Your task to perform on an android device: View the shopping cart on walmart. Add asus rog to the cart on walmart Image 0: 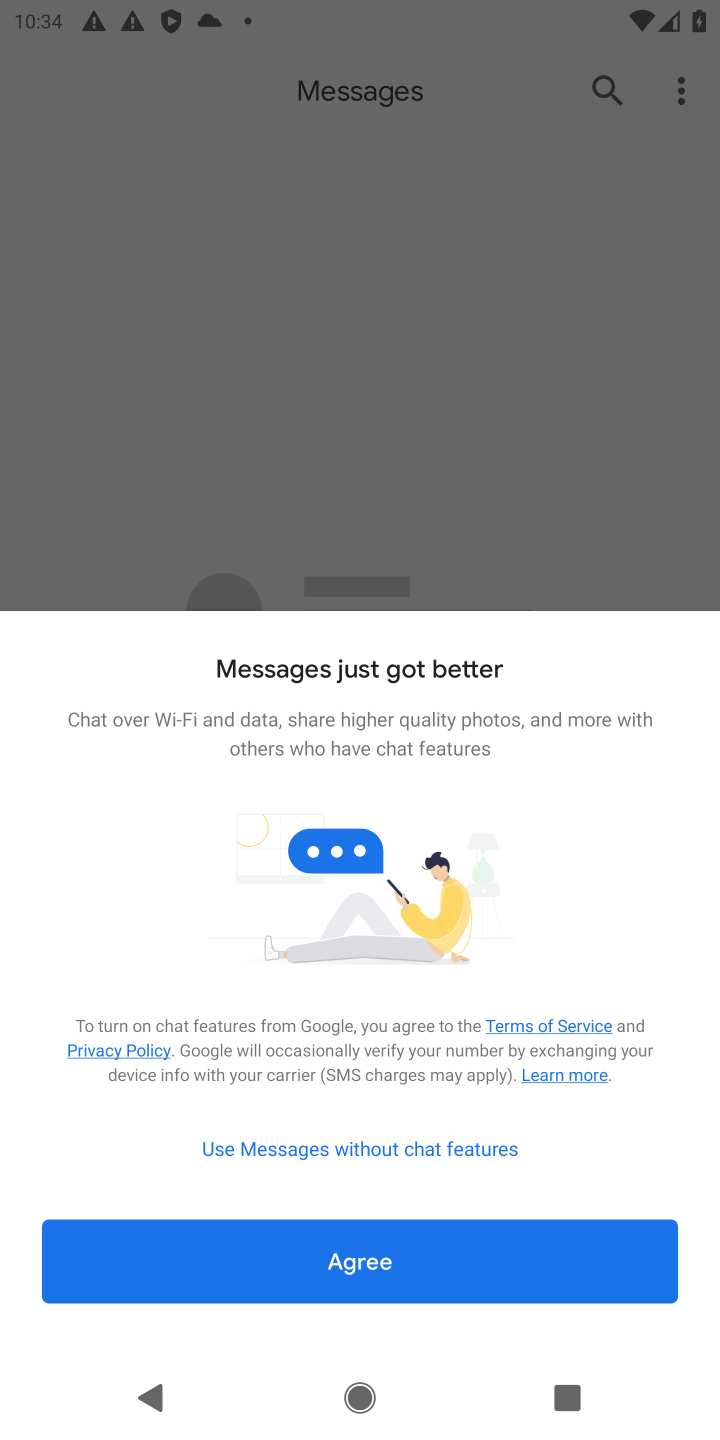
Step 0: press home button
Your task to perform on an android device: View the shopping cart on walmart. Add asus rog to the cart on walmart Image 1: 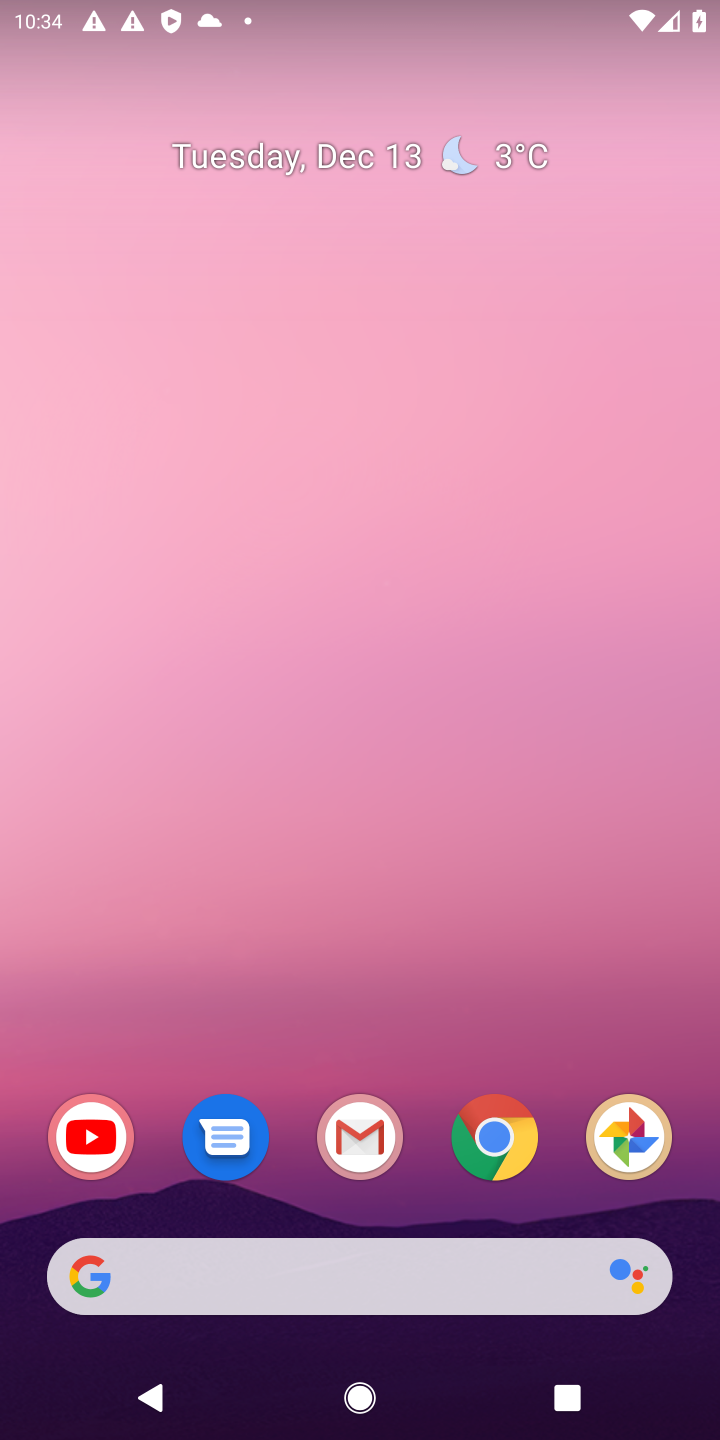
Step 1: press home button
Your task to perform on an android device: View the shopping cart on walmart. Add asus rog to the cart on walmart Image 2: 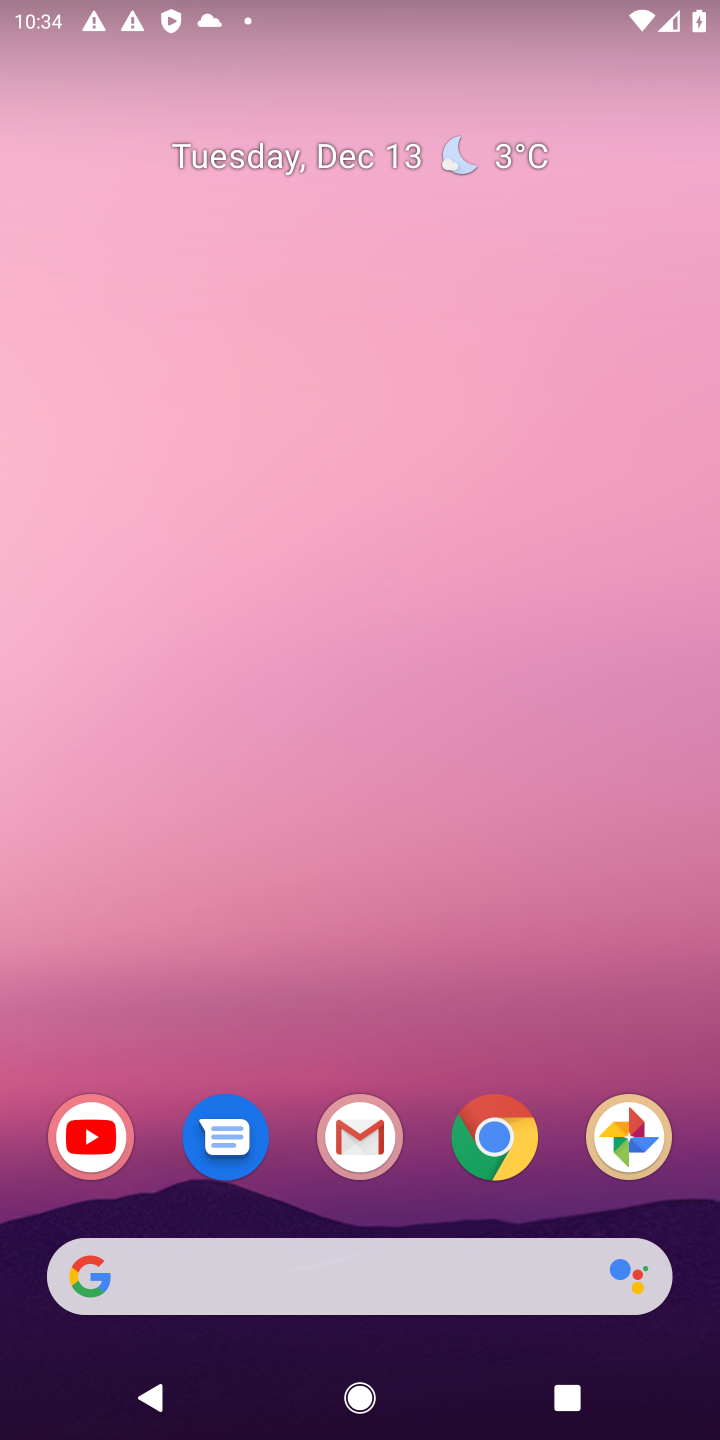
Step 2: click (486, 1119)
Your task to perform on an android device: View the shopping cart on walmart. Add asus rog to the cart on walmart Image 3: 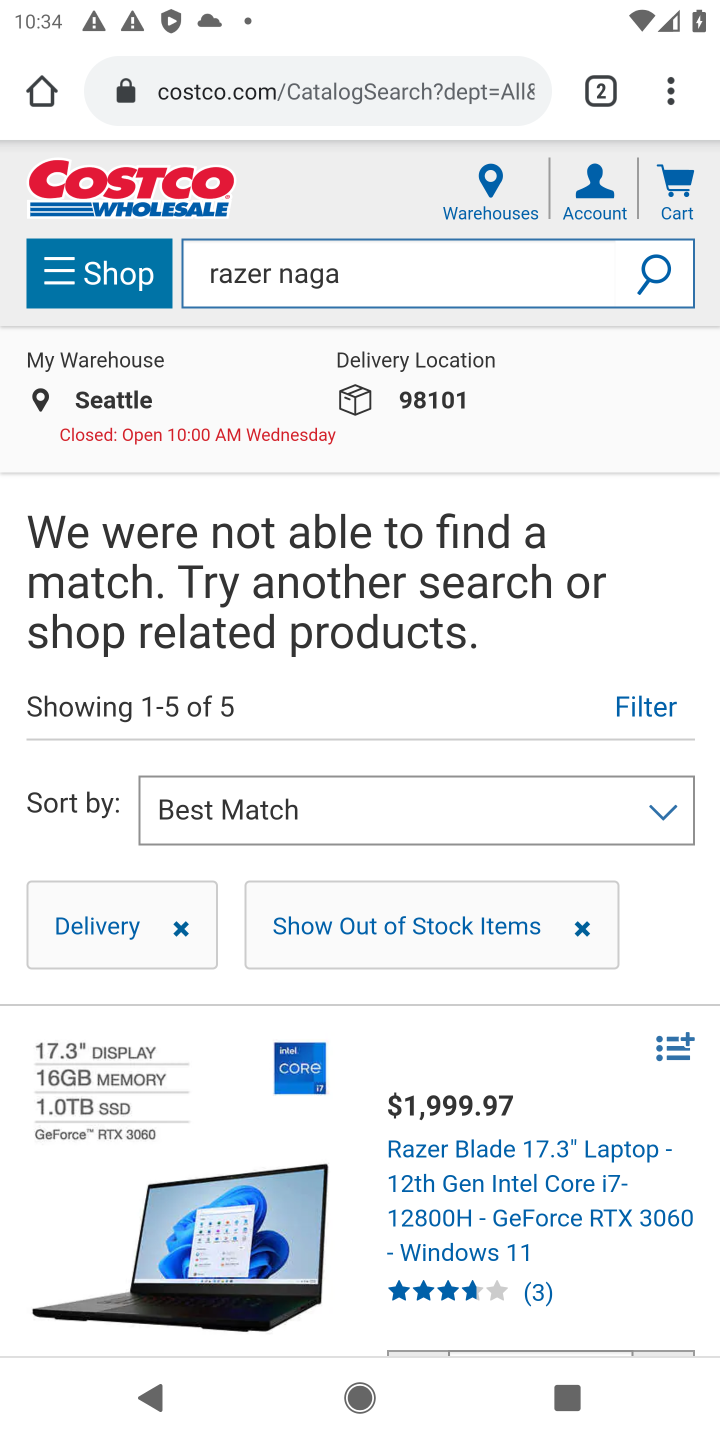
Step 3: click (600, 95)
Your task to perform on an android device: View the shopping cart on walmart. Add asus rog to the cart on walmart Image 4: 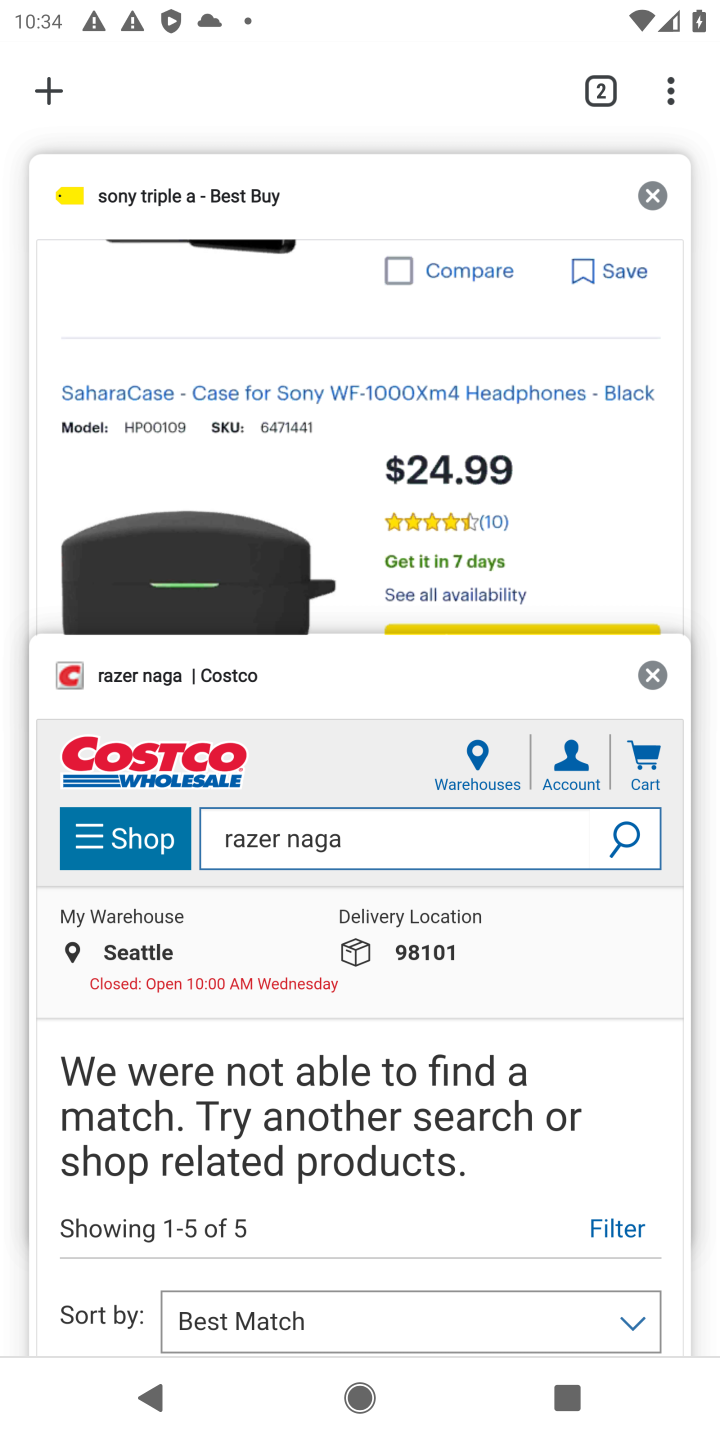
Step 4: click (56, 89)
Your task to perform on an android device: View the shopping cart on walmart. Add asus rog to the cart on walmart Image 5: 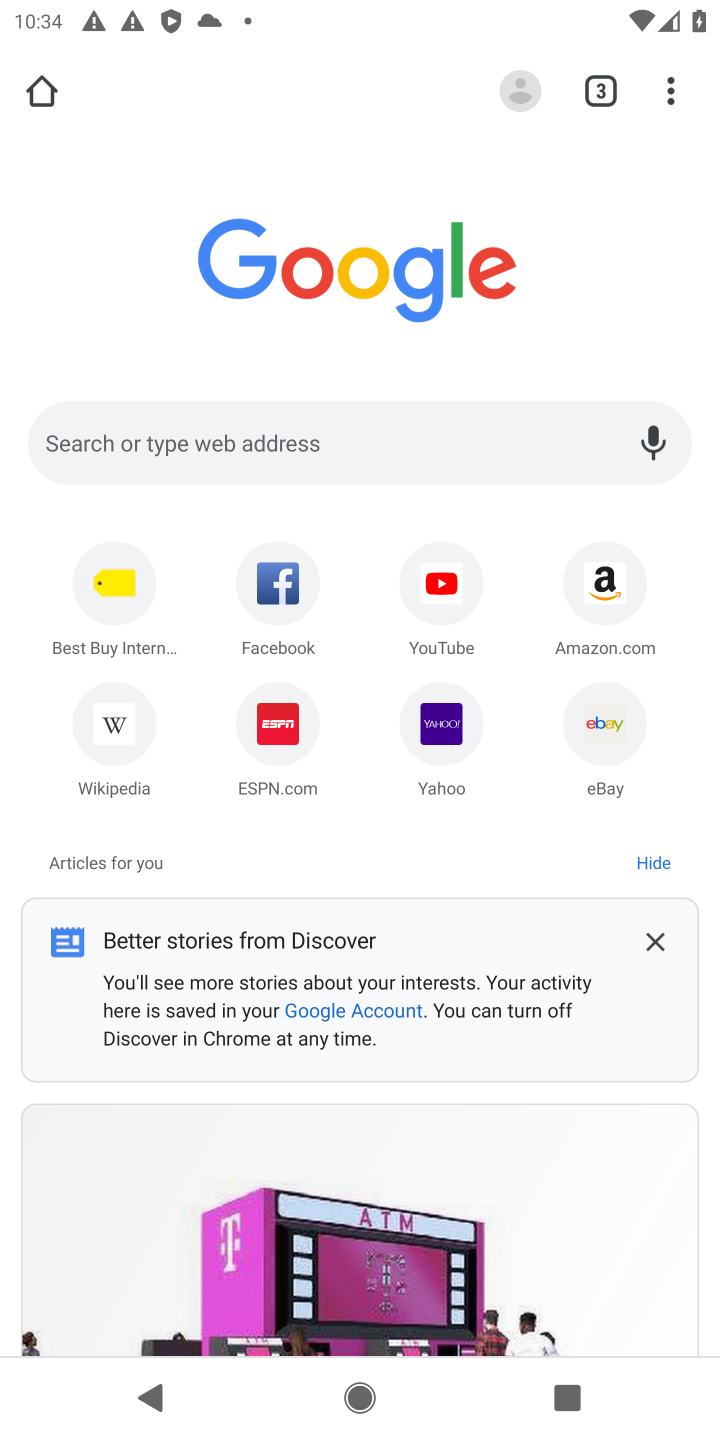
Step 5: click (297, 452)
Your task to perform on an android device: View the shopping cart on walmart. Add asus rog to the cart on walmart Image 6: 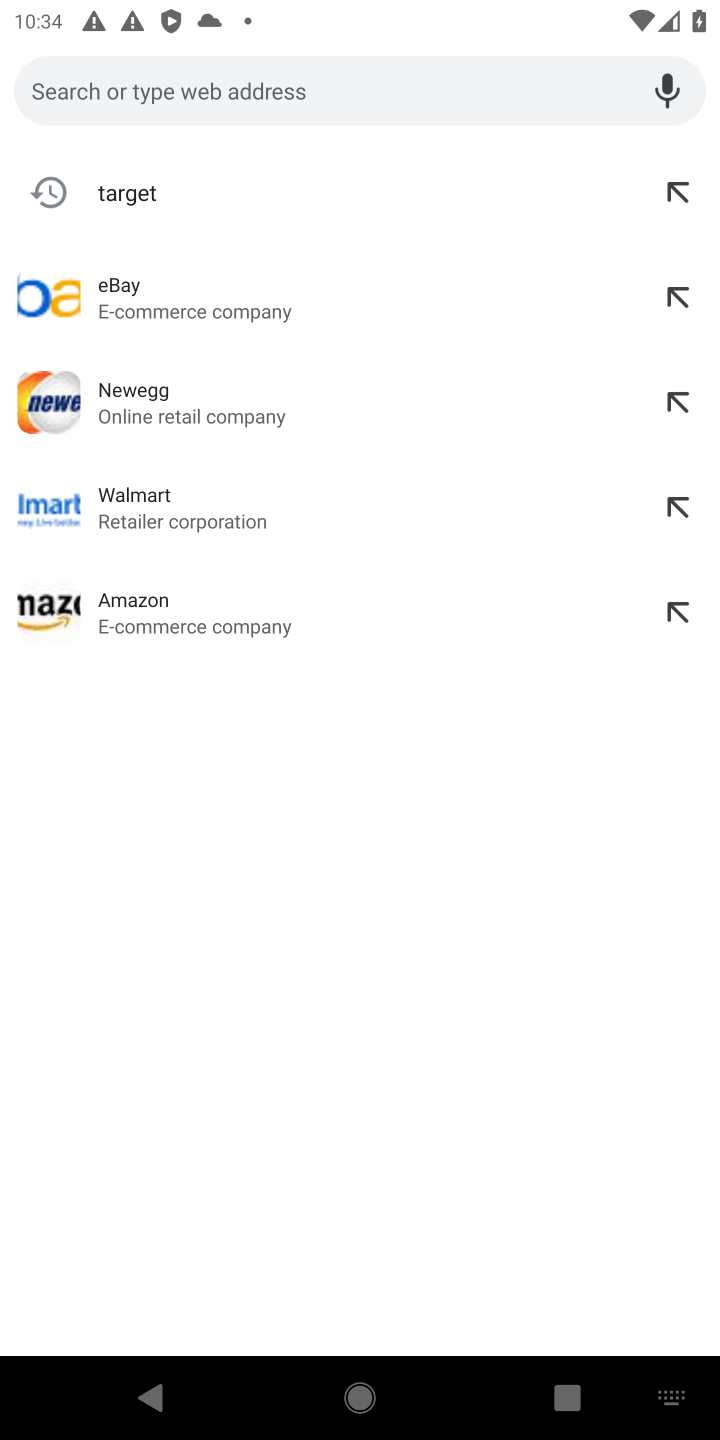
Step 6: click (182, 512)
Your task to perform on an android device: View the shopping cart on walmart. Add asus rog to the cart on walmart Image 7: 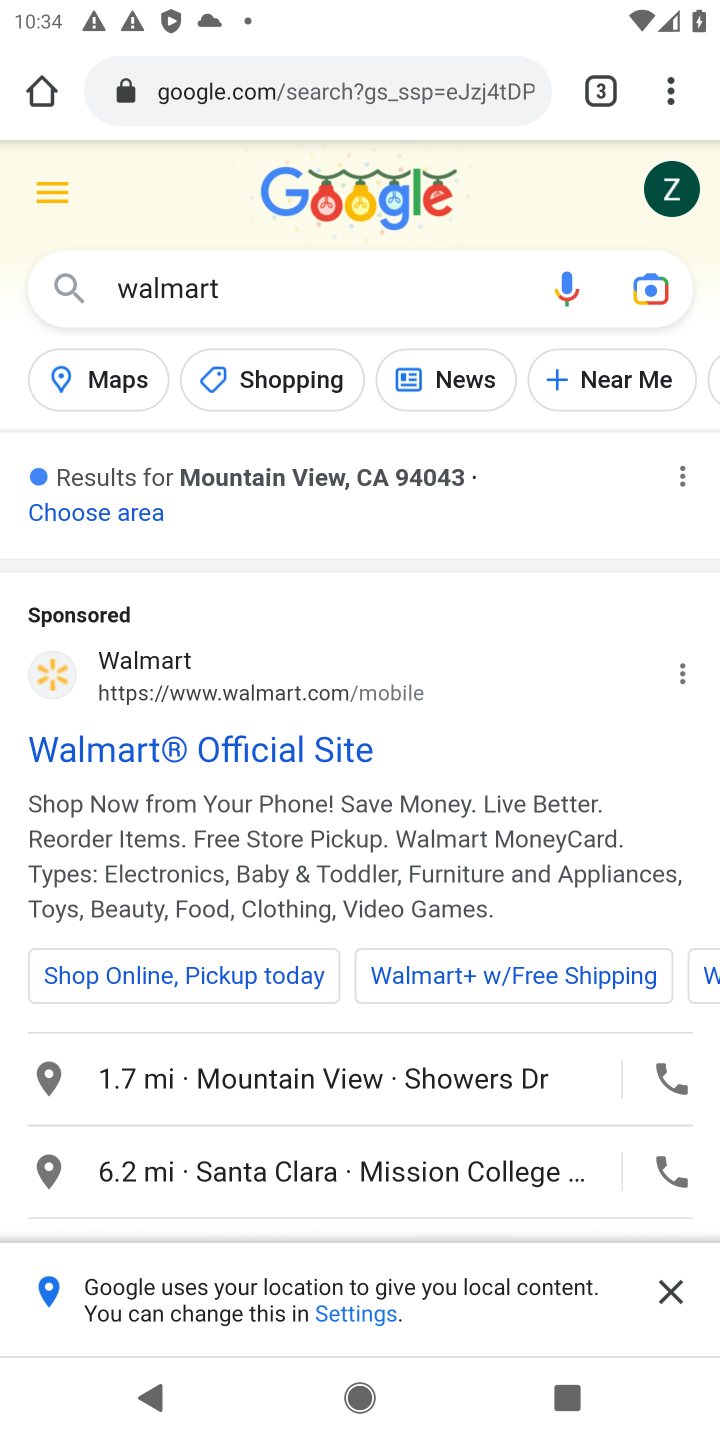
Step 7: click (190, 756)
Your task to perform on an android device: View the shopping cart on walmart. Add asus rog to the cart on walmart Image 8: 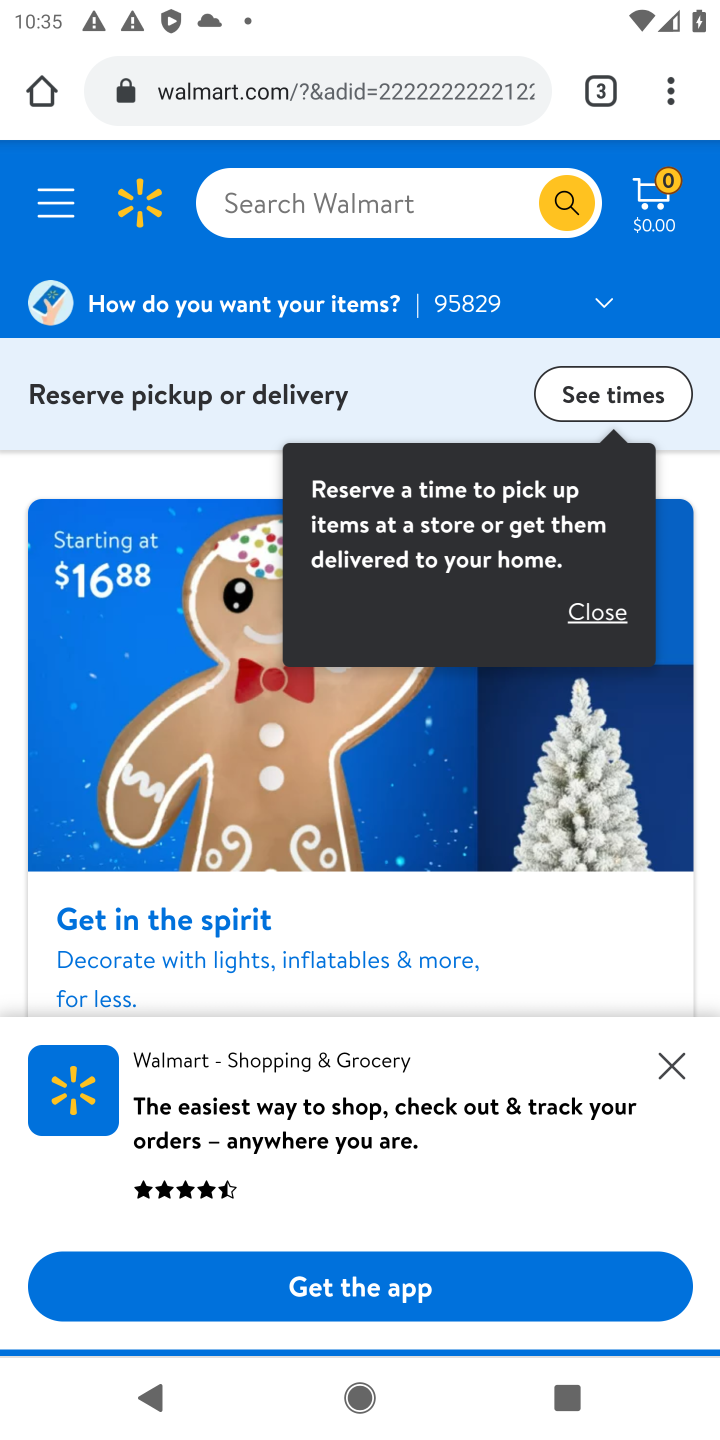
Step 8: click (603, 616)
Your task to perform on an android device: View the shopping cart on walmart. Add asus rog to the cart on walmart Image 9: 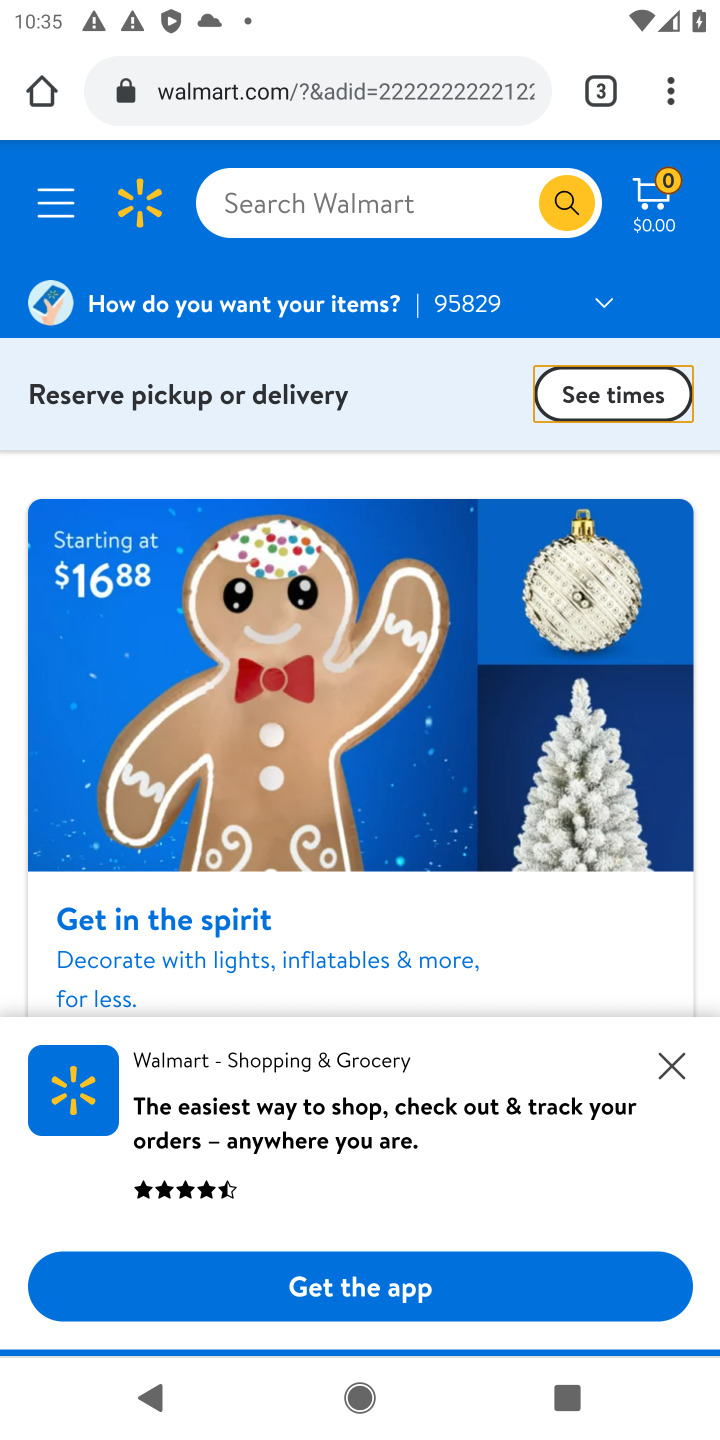
Step 9: click (660, 1057)
Your task to perform on an android device: View the shopping cart on walmart. Add asus rog to the cart on walmart Image 10: 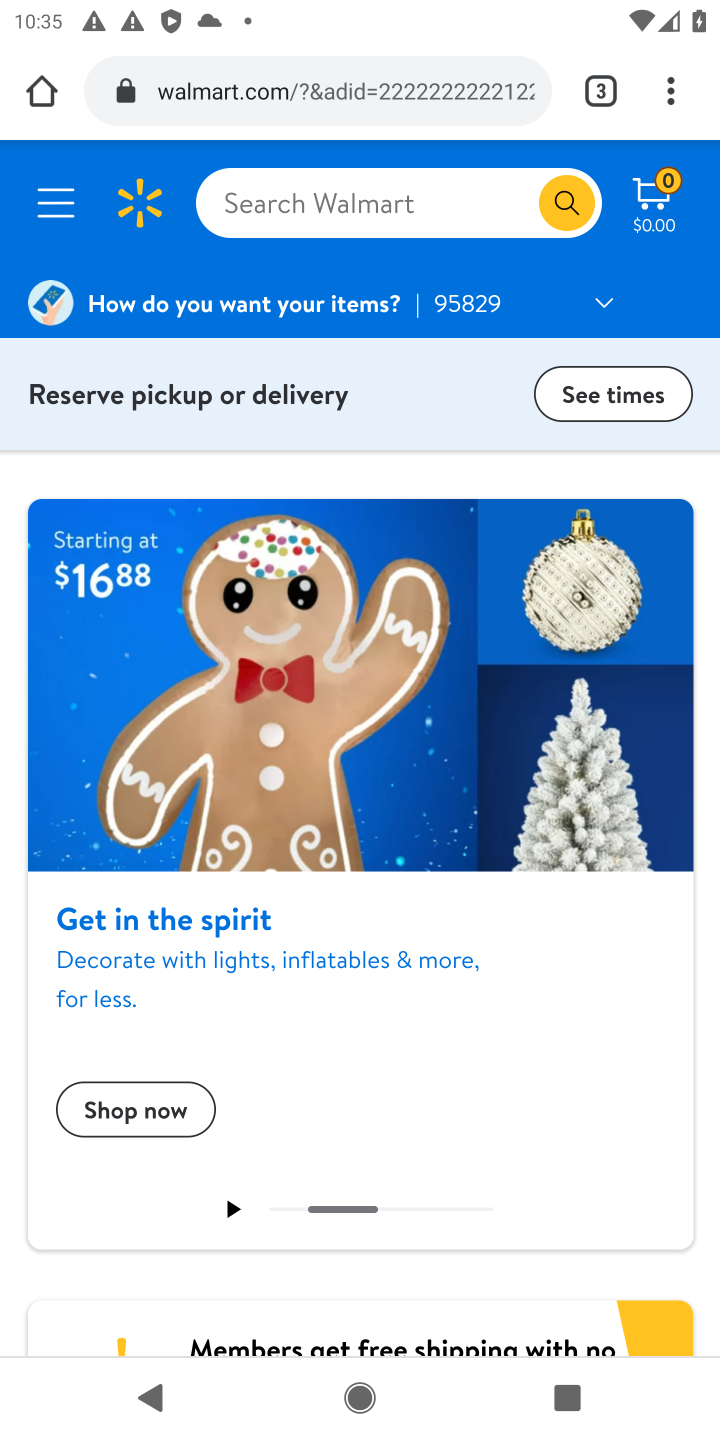
Step 10: click (354, 198)
Your task to perform on an android device: View the shopping cart on walmart. Add asus rog to the cart on walmart Image 11: 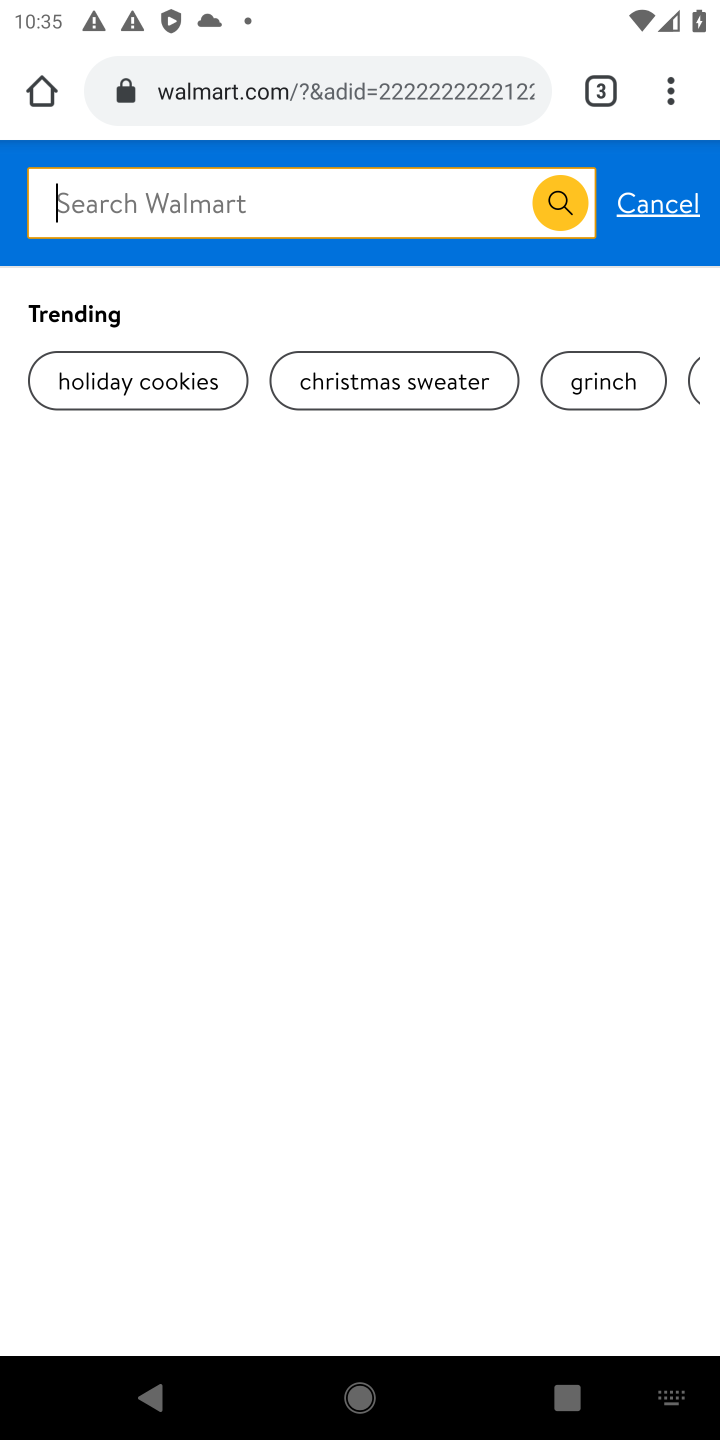
Step 11: type "asus rog"
Your task to perform on an android device: View the shopping cart on walmart. Add asus rog to the cart on walmart Image 12: 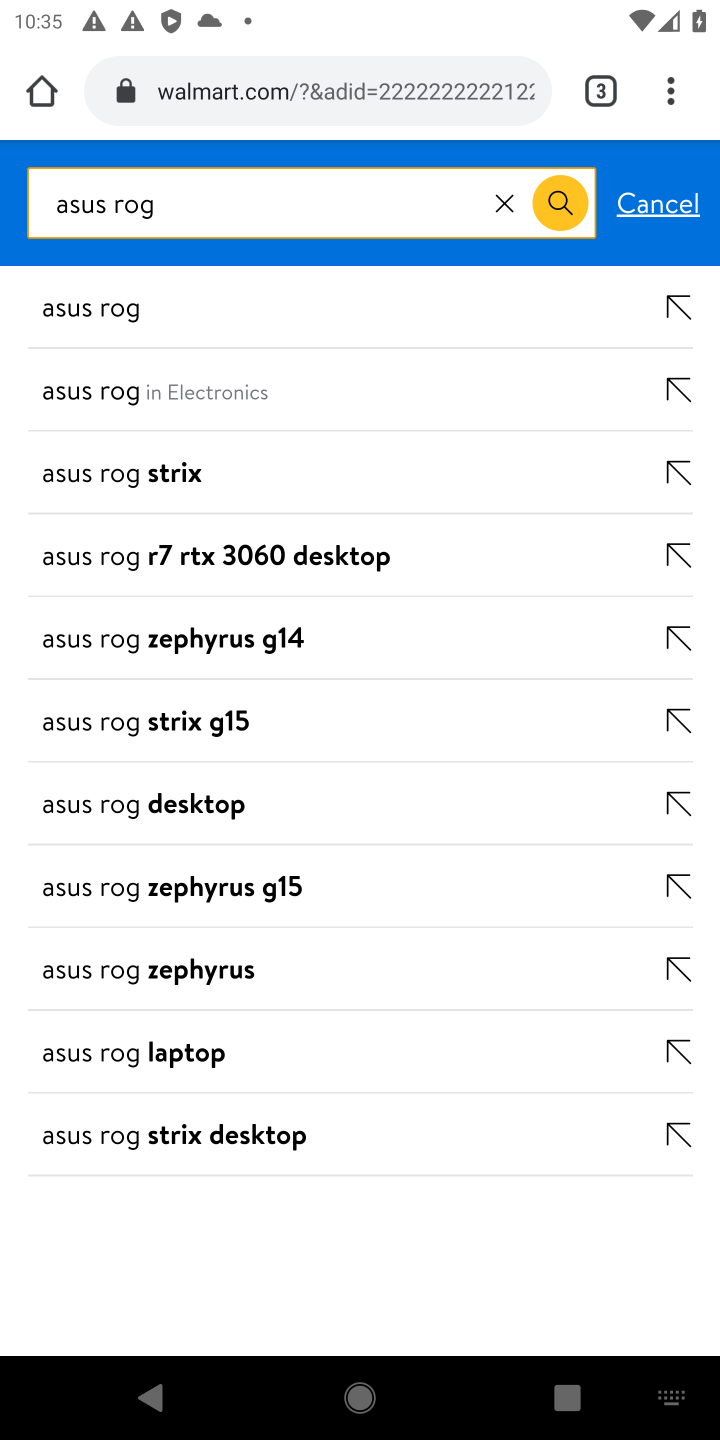
Step 12: click (97, 375)
Your task to perform on an android device: View the shopping cart on walmart. Add asus rog to the cart on walmart Image 13: 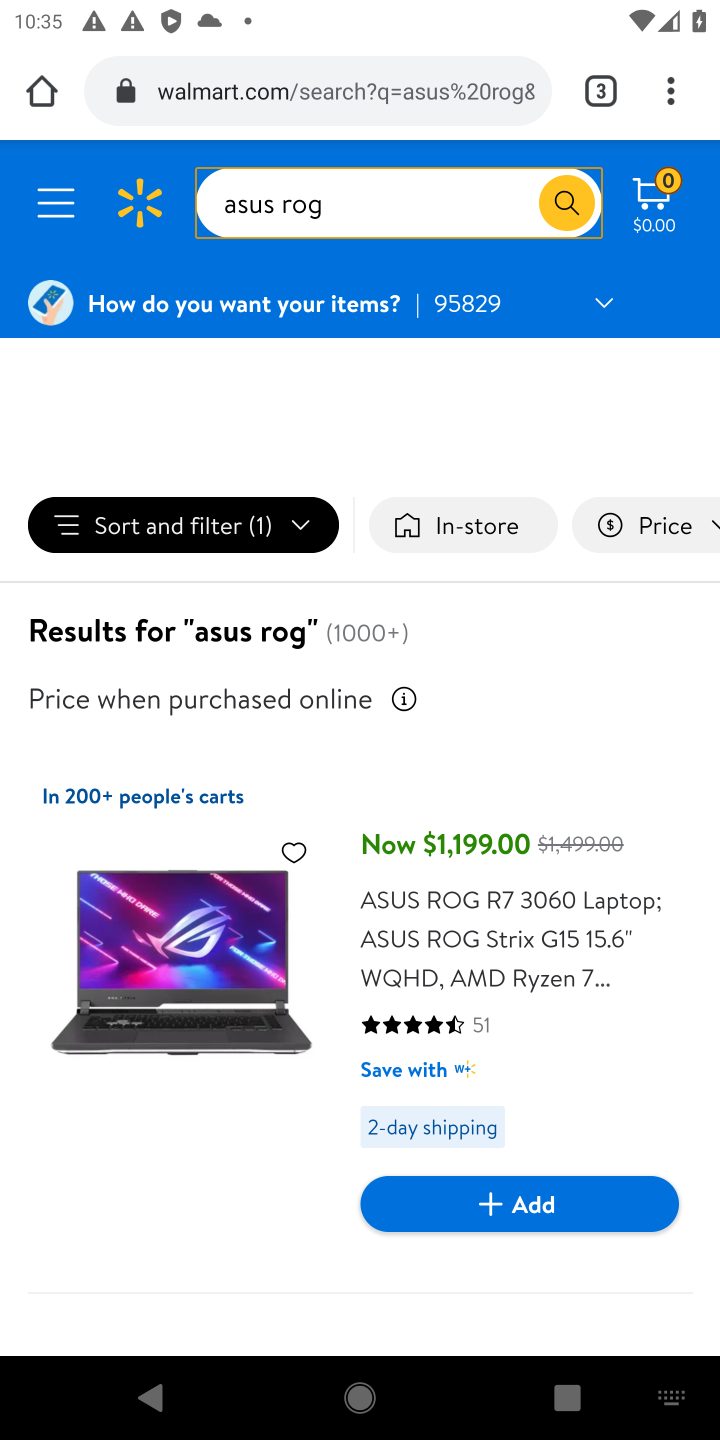
Step 13: click (475, 1215)
Your task to perform on an android device: View the shopping cart on walmart. Add asus rog to the cart on walmart Image 14: 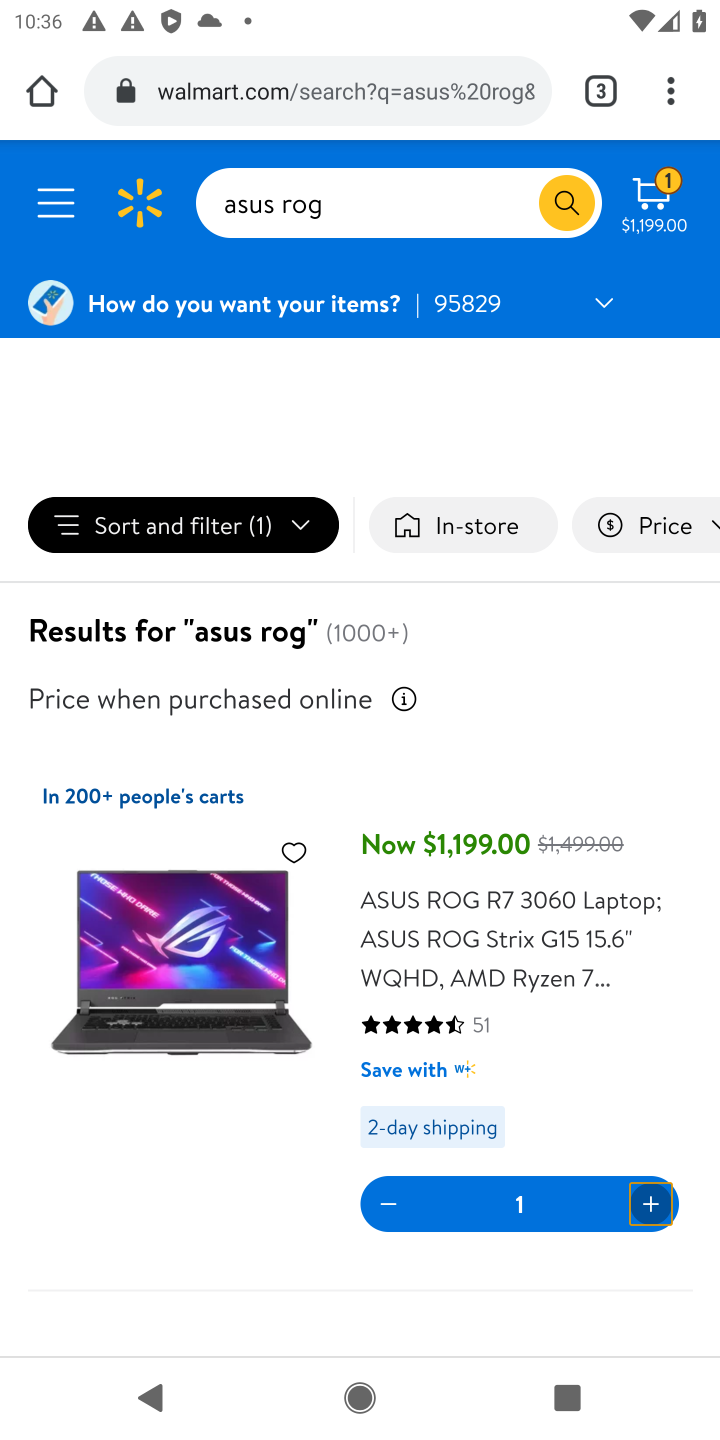
Step 14: task complete